Your task to perform on an android device: When is my next meeting? Image 0: 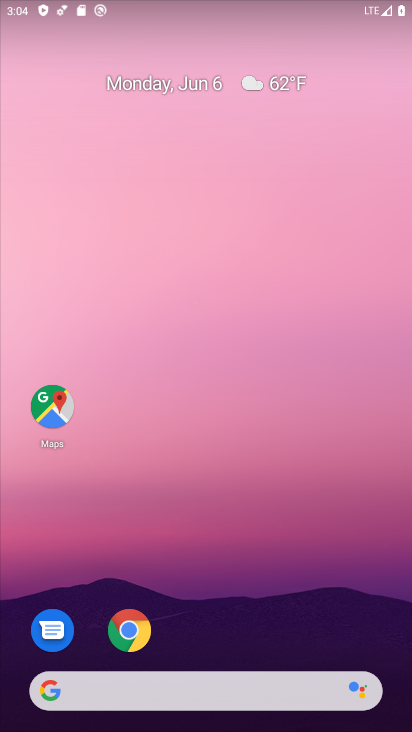
Step 0: press home button
Your task to perform on an android device: When is my next meeting? Image 1: 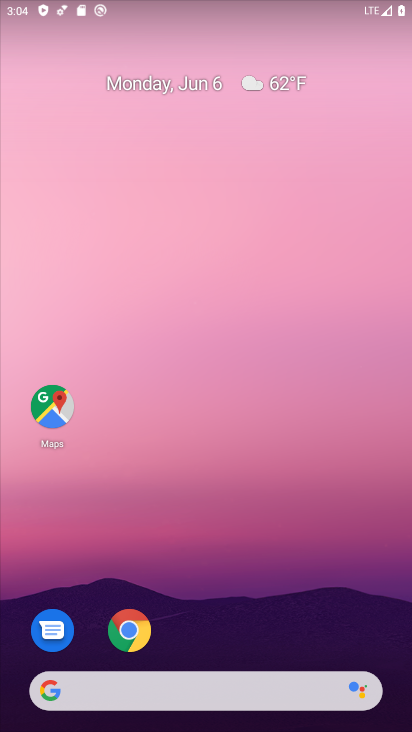
Step 1: drag from (322, 651) to (337, 84)
Your task to perform on an android device: When is my next meeting? Image 2: 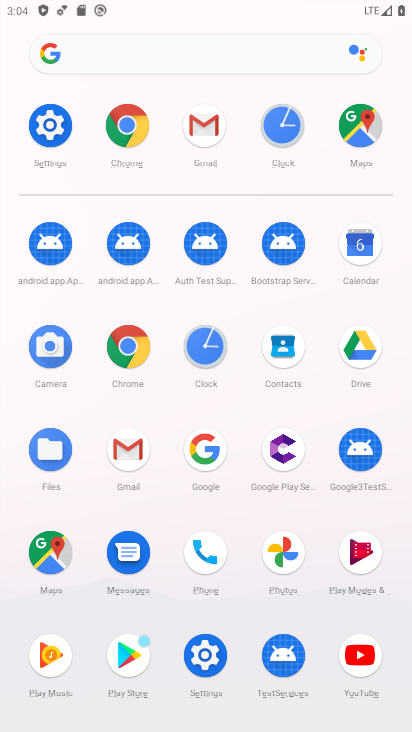
Step 2: click (373, 243)
Your task to perform on an android device: When is my next meeting? Image 3: 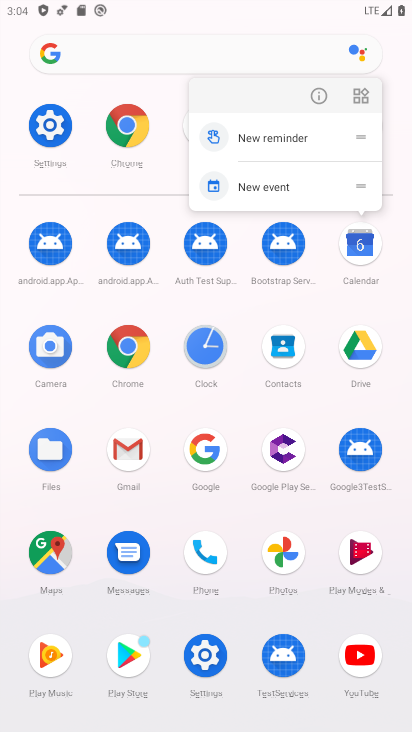
Step 3: click (373, 243)
Your task to perform on an android device: When is my next meeting? Image 4: 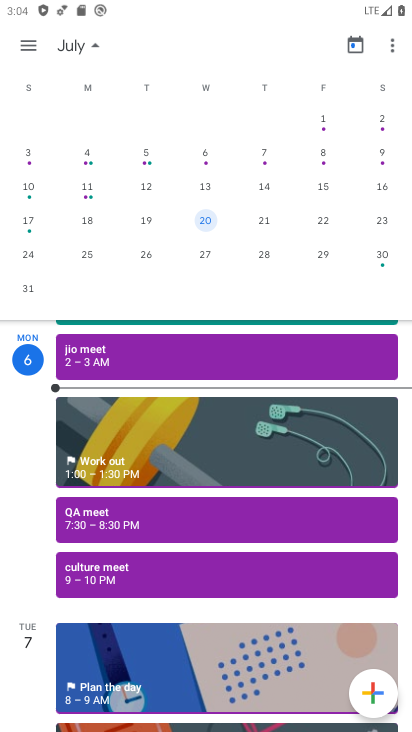
Step 4: drag from (55, 171) to (403, 198)
Your task to perform on an android device: When is my next meeting? Image 5: 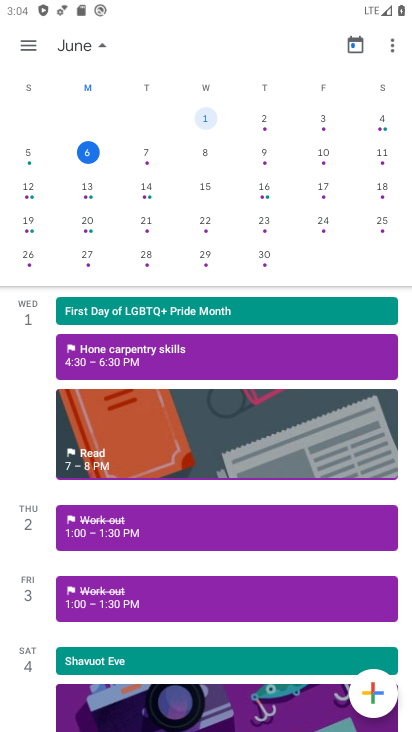
Step 5: click (79, 168)
Your task to perform on an android device: When is my next meeting? Image 6: 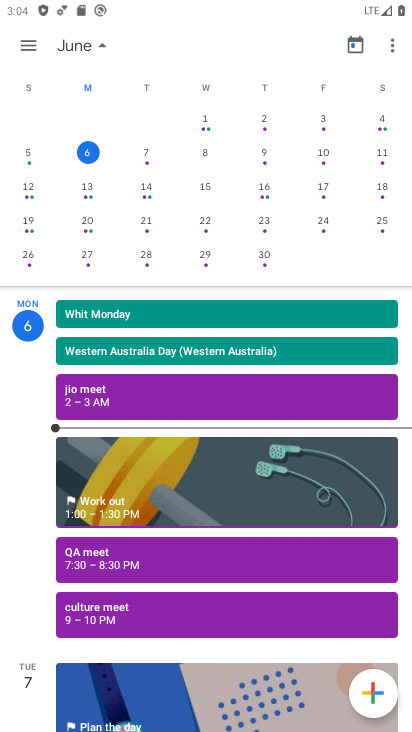
Step 6: click (94, 147)
Your task to perform on an android device: When is my next meeting? Image 7: 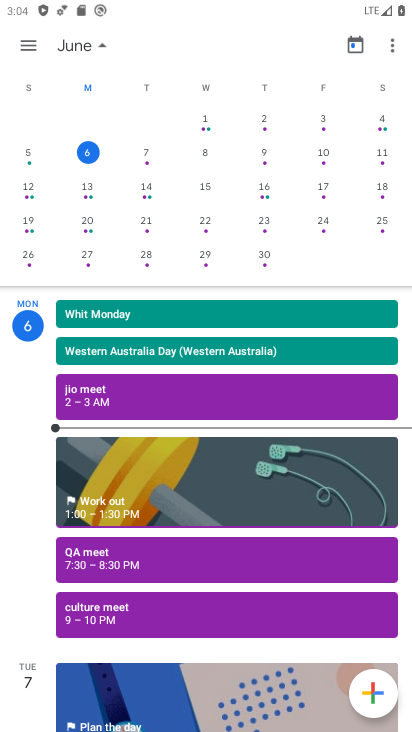
Step 7: click (76, 38)
Your task to perform on an android device: When is my next meeting? Image 8: 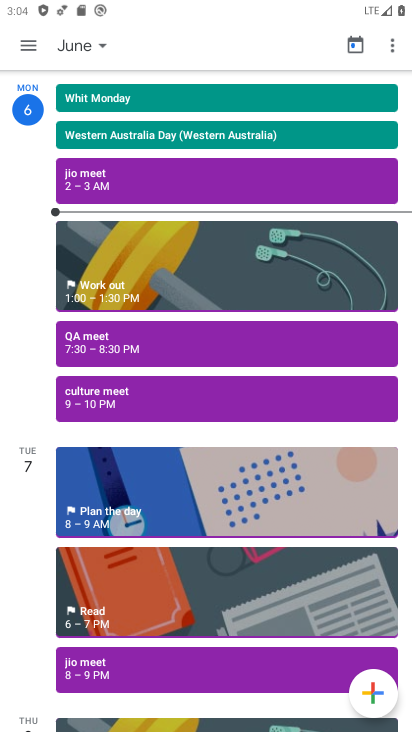
Step 8: task complete